Your task to perform on an android device: Open Google Chrome and click the shortcut for Amazon.com Image 0: 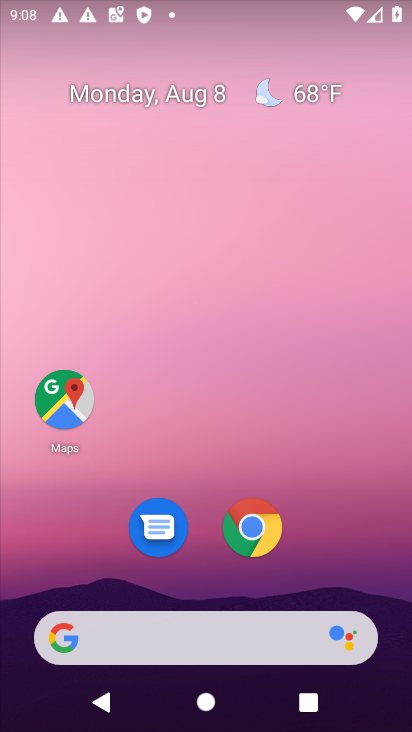
Step 0: click (262, 530)
Your task to perform on an android device: Open Google Chrome and click the shortcut for Amazon.com Image 1: 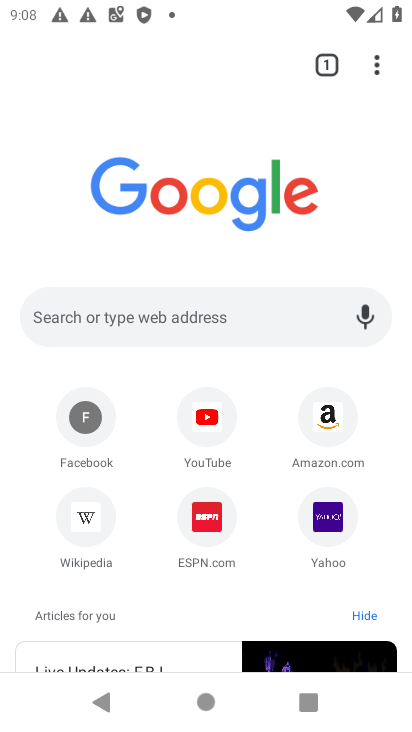
Step 1: click (348, 413)
Your task to perform on an android device: Open Google Chrome and click the shortcut for Amazon.com Image 2: 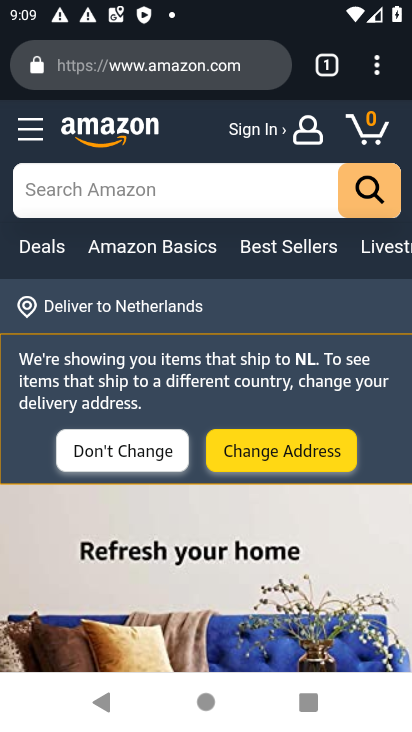
Step 2: task complete